Your task to perform on an android device: change the clock display to show seconds Image 0: 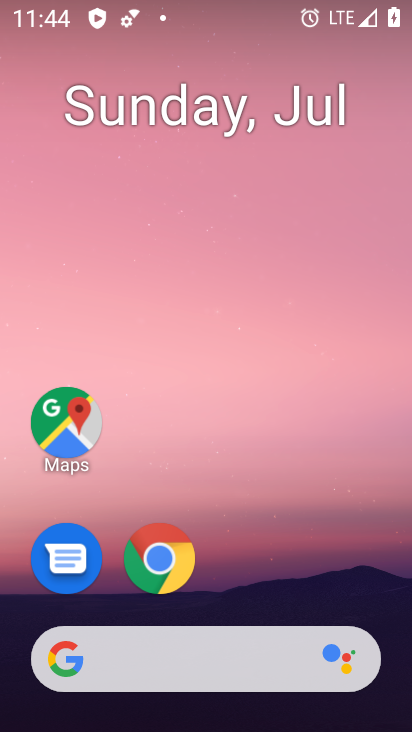
Step 0: drag from (248, 510) to (276, 13)
Your task to perform on an android device: change the clock display to show seconds Image 1: 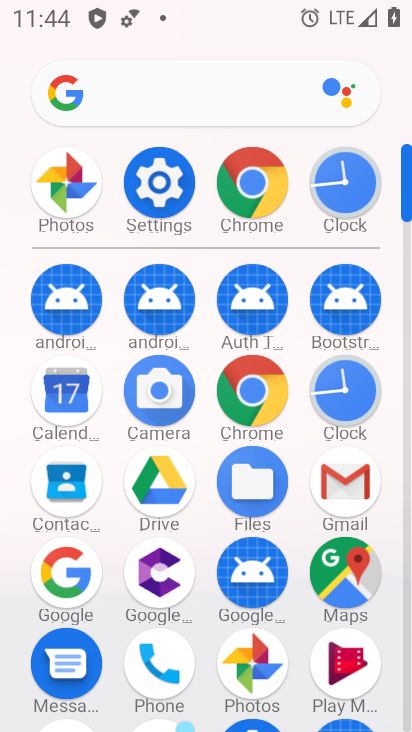
Step 1: click (347, 385)
Your task to perform on an android device: change the clock display to show seconds Image 2: 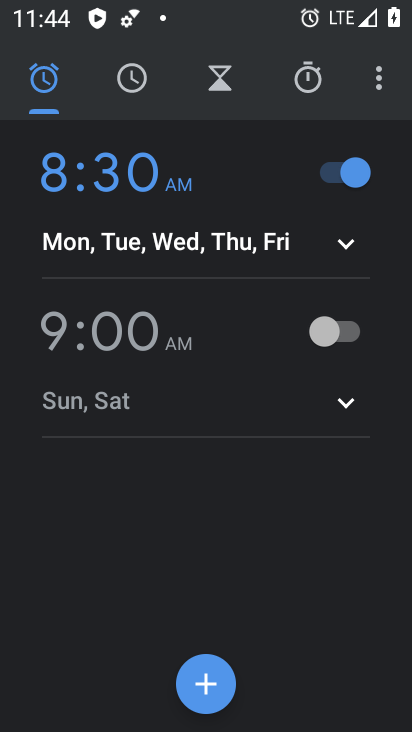
Step 2: click (379, 71)
Your task to perform on an android device: change the clock display to show seconds Image 3: 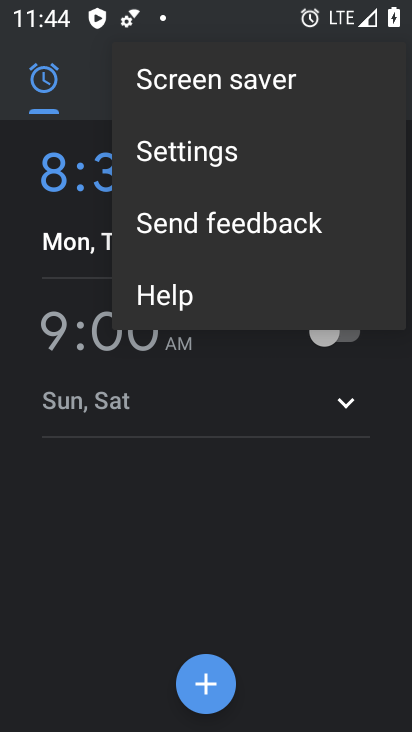
Step 3: click (200, 155)
Your task to perform on an android device: change the clock display to show seconds Image 4: 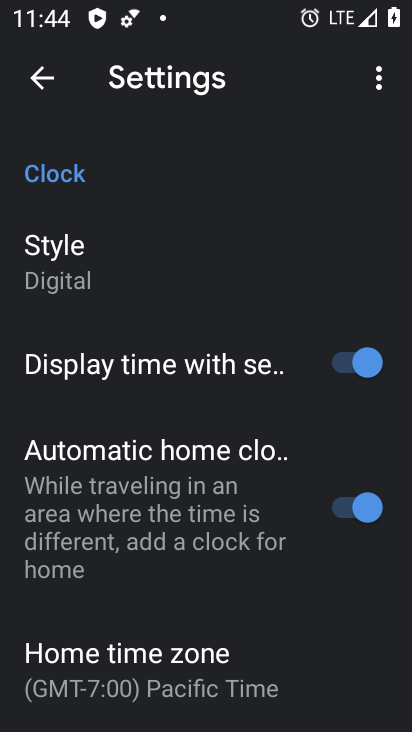
Step 4: task complete